Your task to perform on an android device: Go to ESPN.com Image 0: 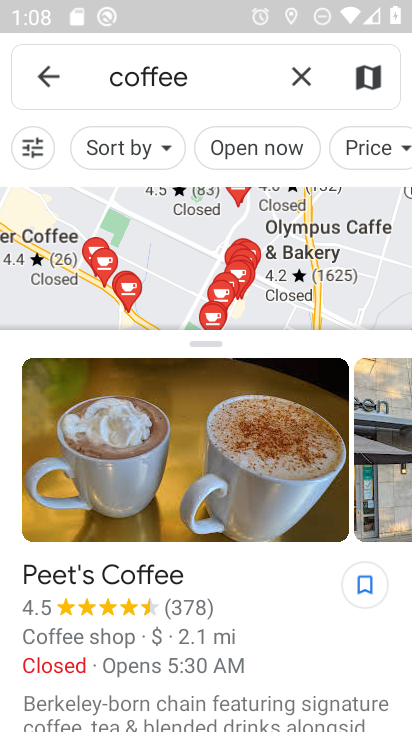
Step 0: press home button
Your task to perform on an android device: Go to ESPN.com Image 1: 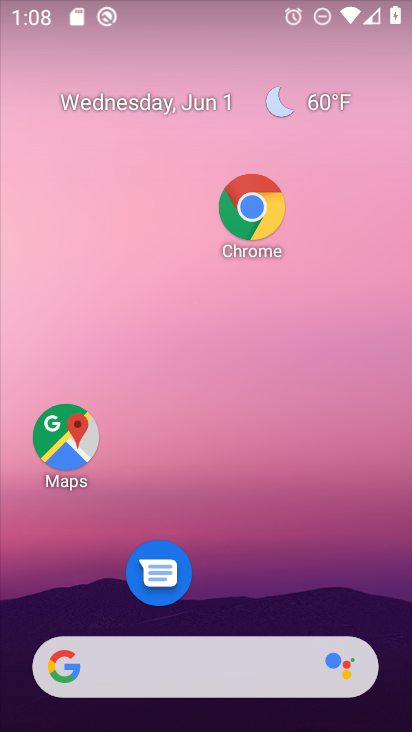
Step 1: click (230, 241)
Your task to perform on an android device: Go to ESPN.com Image 2: 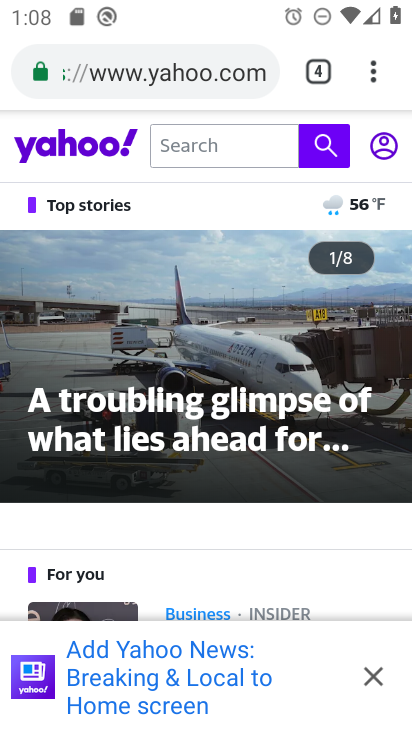
Step 2: click (308, 72)
Your task to perform on an android device: Go to ESPN.com Image 3: 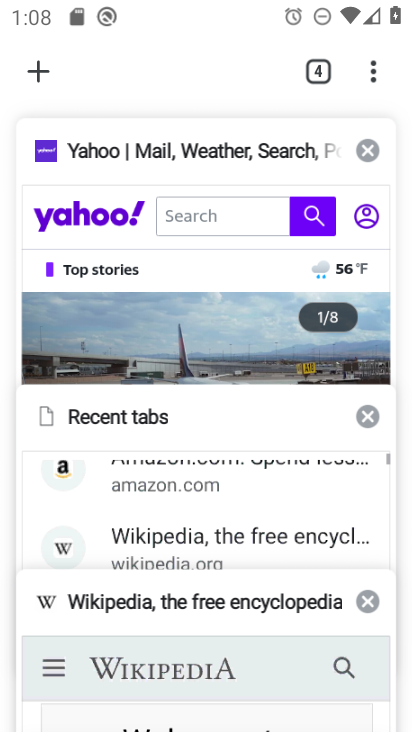
Step 3: drag from (179, 599) to (193, 170)
Your task to perform on an android device: Go to ESPN.com Image 4: 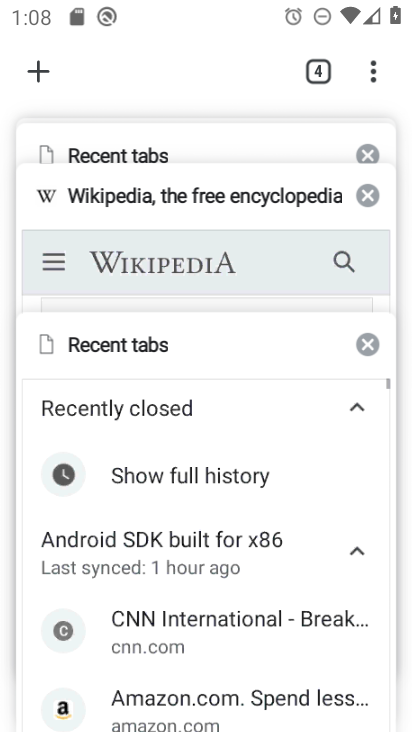
Step 4: drag from (191, 522) to (197, 111)
Your task to perform on an android device: Go to ESPN.com Image 5: 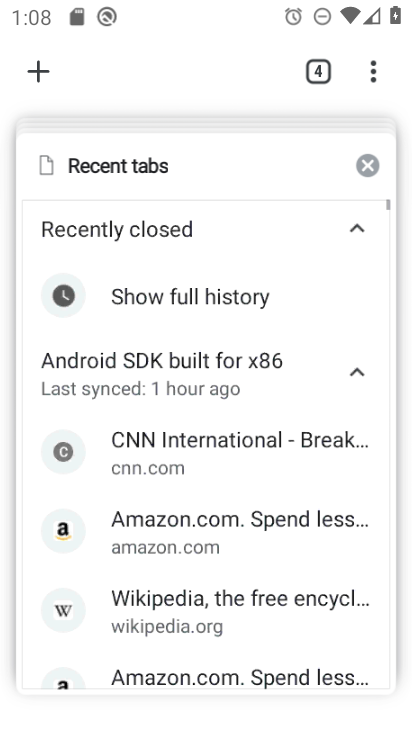
Step 5: click (48, 77)
Your task to perform on an android device: Go to ESPN.com Image 6: 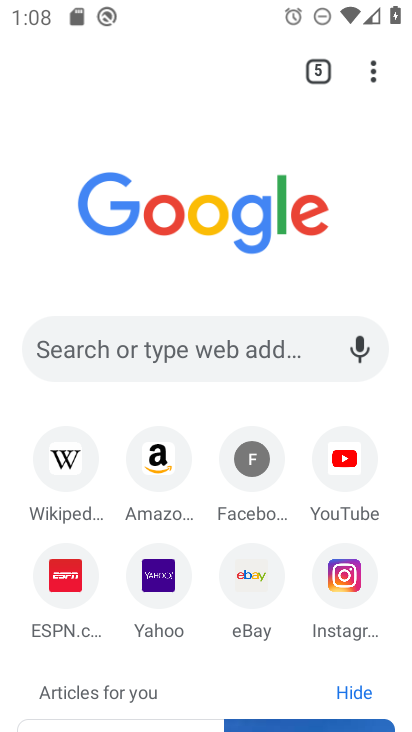
Step 6: click (82, 592)
Your task to perform on an android device: Go to ESPN.com Image 7: 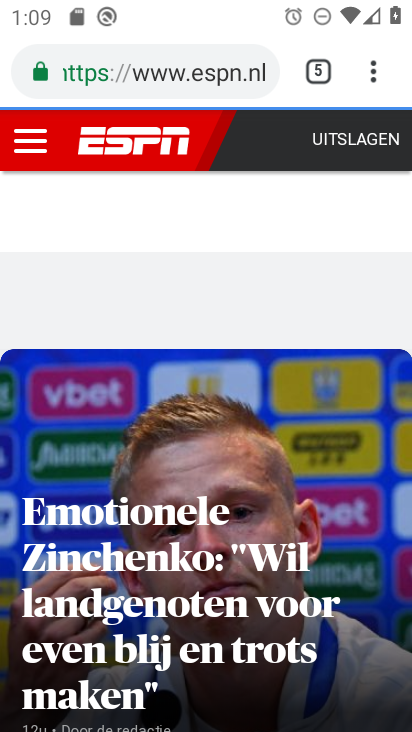
Step 7: task complete